Your task to perform on an android device: Open Google Image 0: 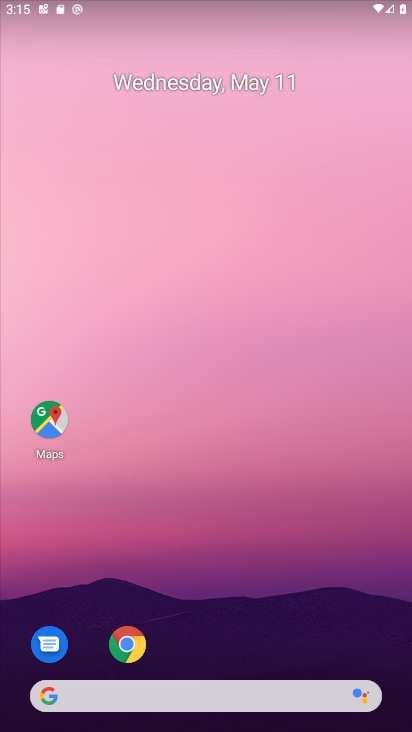
Step 0: click (162, 688)
Your task to perform on an android device: Open Google Image 1: 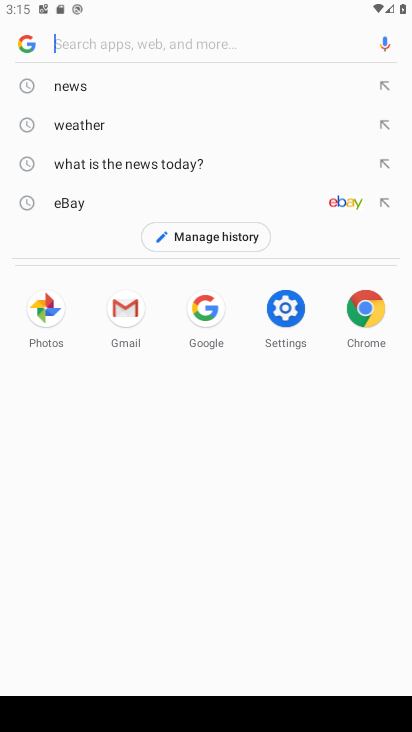
Step 1: task complete